Your task to perform on an android device: stop showing notifications on the lock screen Image 0: 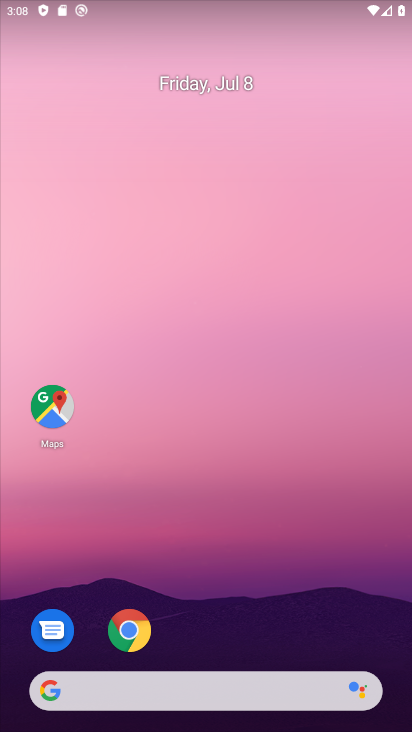
Step 0: drag from (222, 635) to (237, 32)
Your task to perform on an android device: stop showing notifications on the lock screen Image 1: 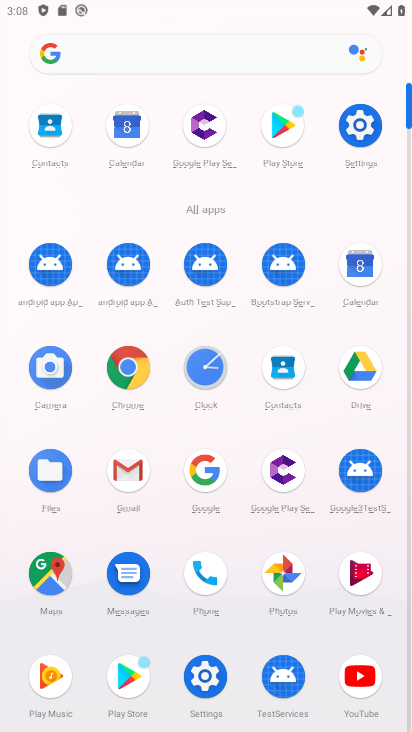
Step 1: click (358, 126)
Your task to perform on an android device: stop showing notifications on the lock screen Image 2: 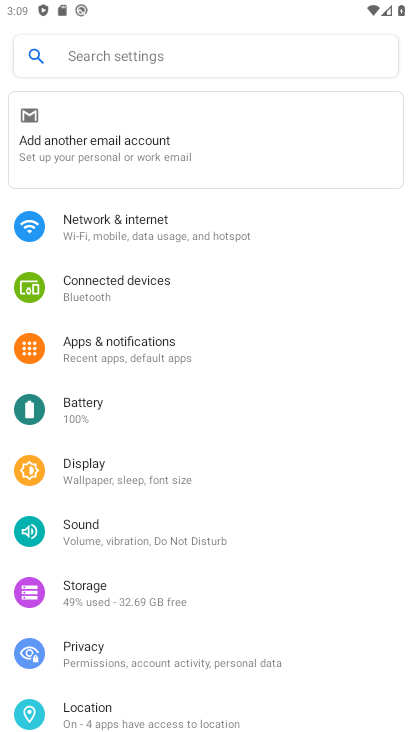
Step 2: click (116, 350)
Your task to perform on an android device: stop showing notifications on the lock screen Image 3: 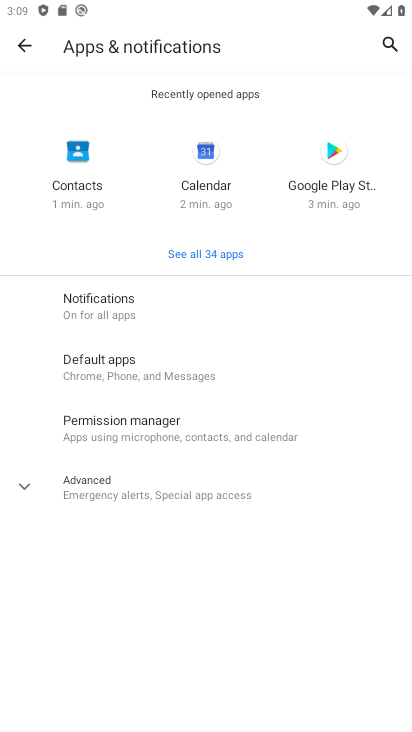
Step 3: click (109, 309)
Your task to perform on an android device: stop showing notifications on the lock screen Image 4: 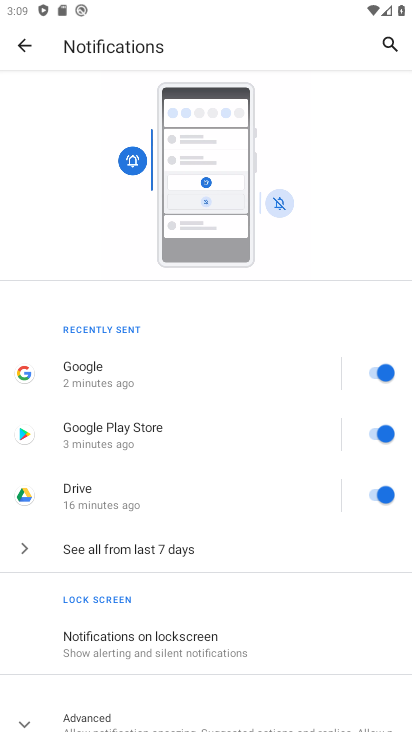
Step 4: click (112, 641)
Your task to perform on an android device: stop showing notifications on the lock screen Image 5: 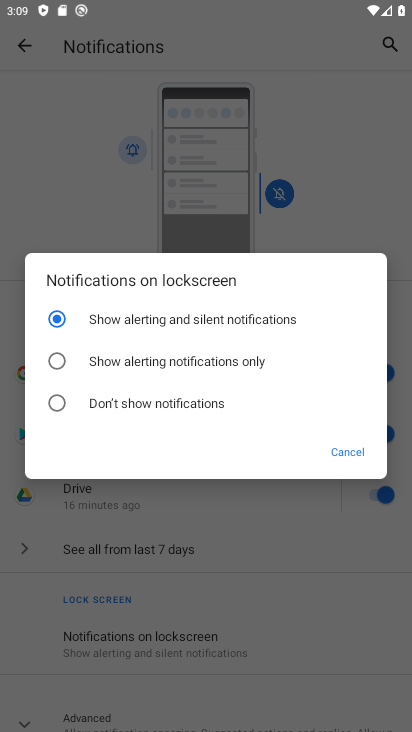
Step 5: click (58, 400)
Your task to perform on an android device: stop showing notifications on the lock screen Image 6: 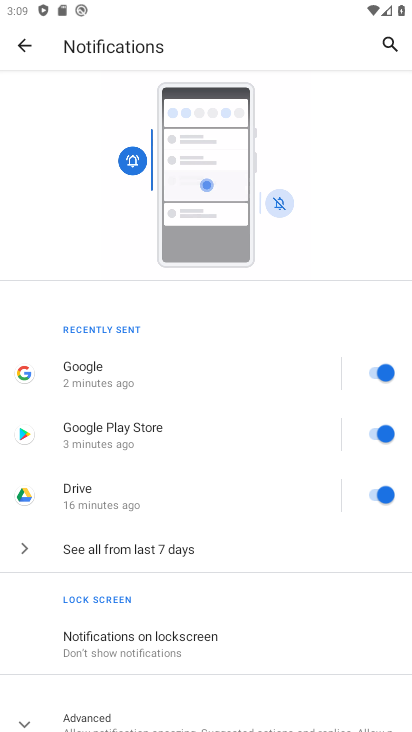
Step 6: task complete